Your task to perform on an android device: turn on sleep mode Image 0: 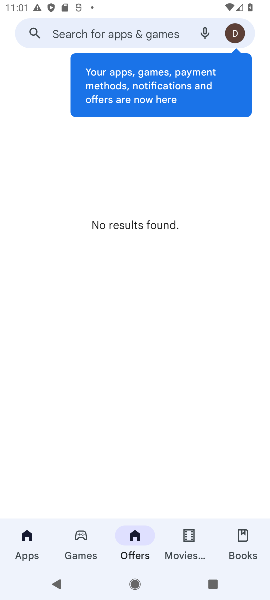
Step 0: press home button
Your task to perform on an android device: turn on sleep mode Image 1: 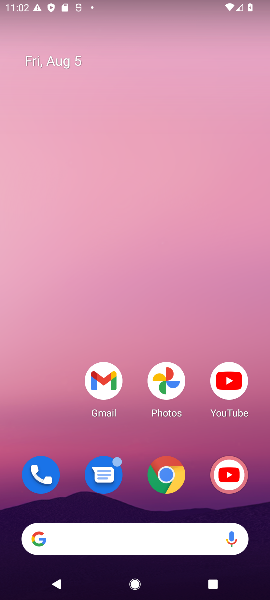
Step 1: drag from (128, 514) to (150, 5)
Your task to perform on an android device: turn on sleep mode Image 2: 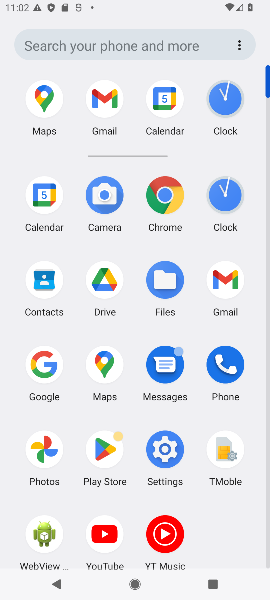
Step 2: click (166, 447)
Your task to perform on an android device: turn on sleep mode Image 3: 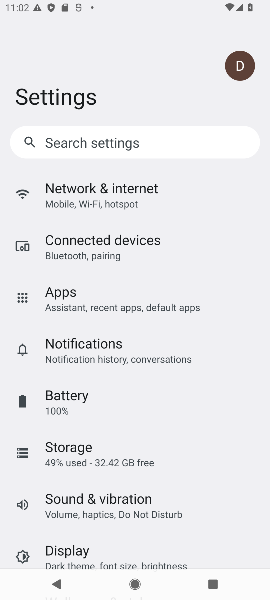
Step 3: click (122, 142)
Your task to perform on an android device: turn on sleep mode Image 4: 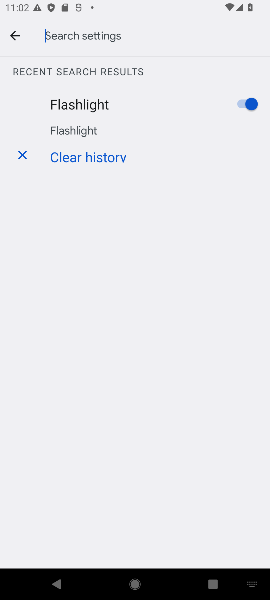
Step 4: type "sleep mode"
Your task to perform on an android device: turn on sleep mode Image 5: 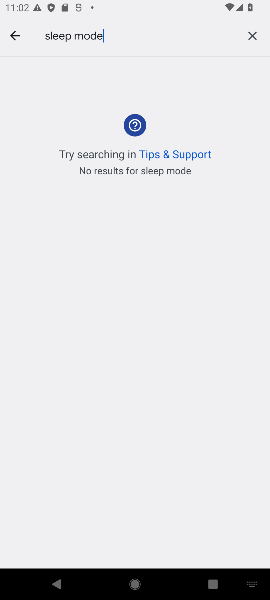
Step 5: click (187, 253)
Your task to perform on an android device: turn on sleep mode Image 6: 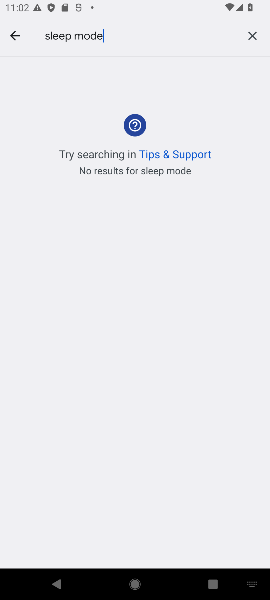
Step 6: task complete